Your task to perform on an android device: What's the weather going to be tomorrow? Image 0: 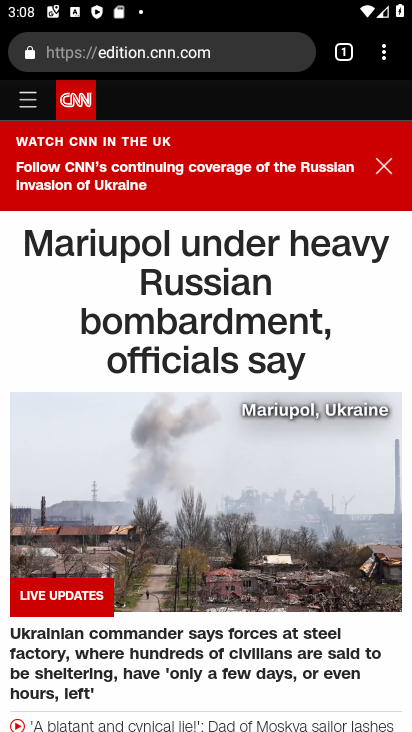
Step 0: press home button
Your task to perform on an android device: What's the weather going to be tomorrow? Image 1: 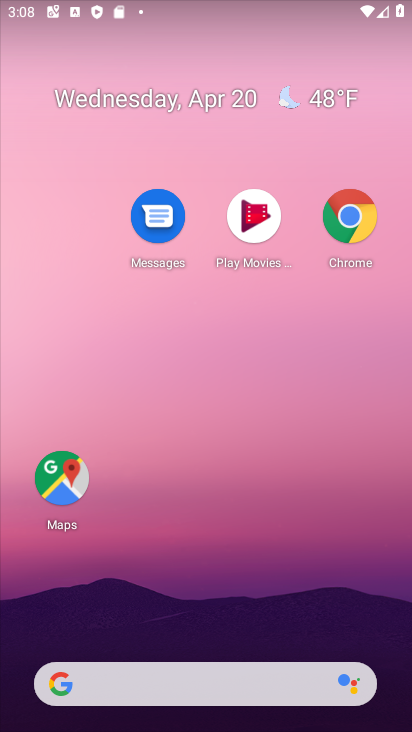
Step 1: drag from (363, 575) to (331, 446)
Your task to perform on an android device: What's the weather going to be tomorrow? Image 2: 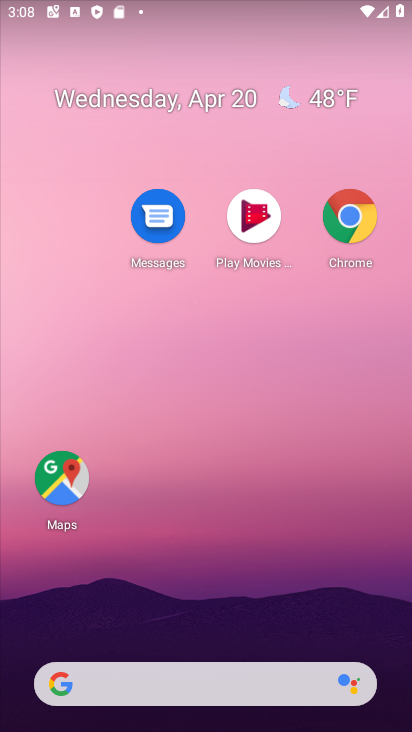
Step 2: click (335, 106)
Your task to perform on an android device: What's the weather going to be tomorrow? Image 3: 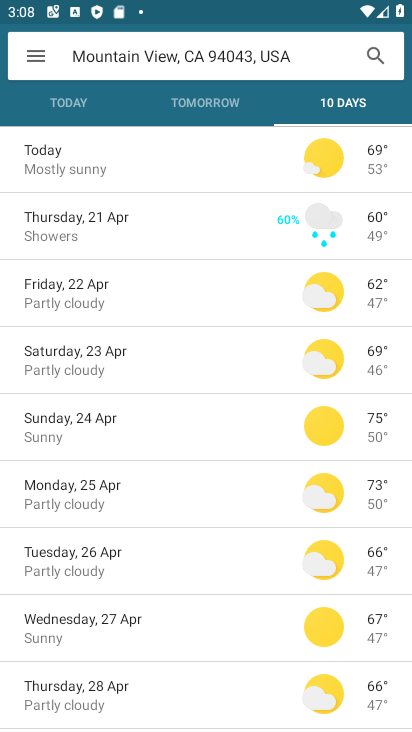
Step 3: click (201, 107)
Your task to perform on an android device: What's the weather going to be tomorrow? Image 4: 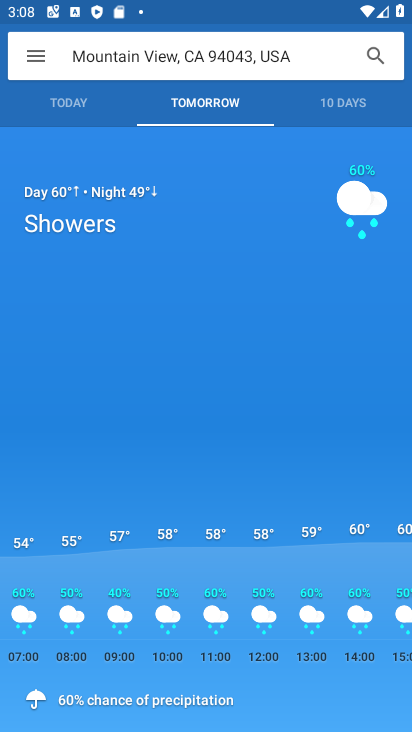
Step 4: task complete